Your task to perform on an android device: Search for sony triple a on bestbuy.com, select the first entry, add it to the cart, then select checkout. Image 0: 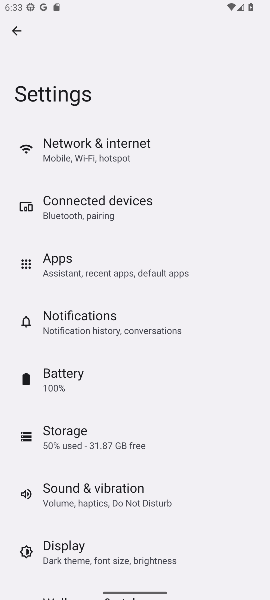
Step 0: press home button
Your task to perform on an android device: Search for sony triple a on bestbuy.com, select the first entry, add it to the cart, then select checkout. Image 1: 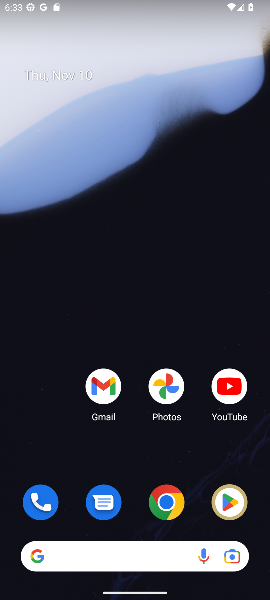
Step 1: drag from (135, 463) to (111, 134)
Your task to perform on an android device: Search for sony triple a on bestbuy.com, select the first entry, add it to the cart, then select checkout. Image 2: 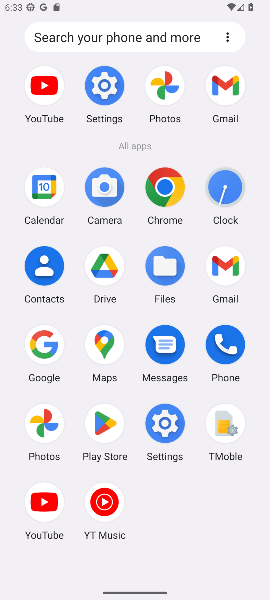
Step 2: click (40, 347)
Your task to perform on an android device: Search for sony triple a on bestbuy.com, select the first entry, add it to the cart, then select checkout. Image 3: 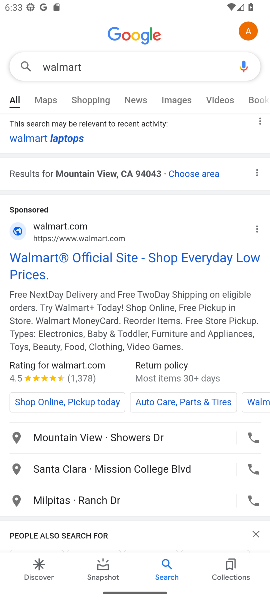
Step 3: click (143, 61)
Your task to perform on an android device: Search for sony triple a on bestbuy.com, select the first entry, add it to the cart, then select checkout. Image 4: 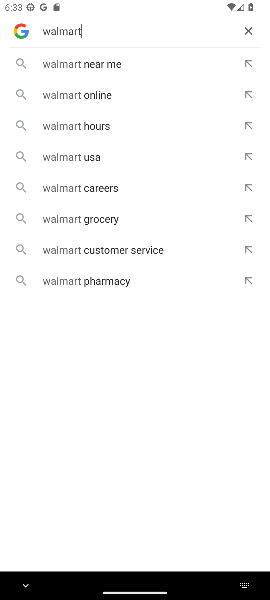
Step 4: click (245, 30)
Your task to perform on an android device: Search for sony triple a on bestbuy.com, select the first entry, add it to the cart, then select checkout. Image 5: 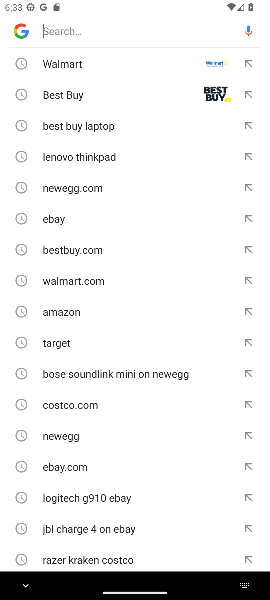
Step 5: click (106, 96)
Your task to perform on an android device: Search for sony triple a on bestbuy.com, select the first entry, add it to the cart, then select checkout. Image 6: 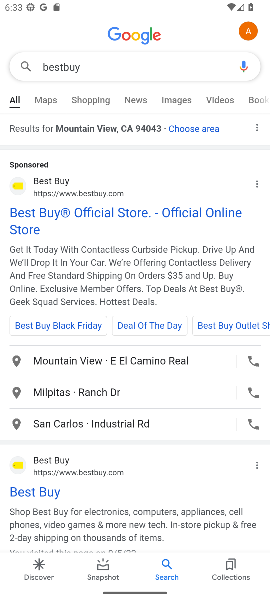
Step 6: click (39, 211)
Your task to perform on an android device: Search for sony triple a on bestbuy.com, select the first entry, add it to the cart, then select checkout. Image 7: 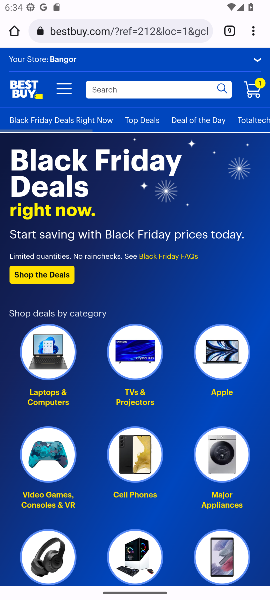
Step 7: click (153, 87)
Your task to perform on an android device: Search for sony triple a on bestbuy.com, select the first entry, add it to the cart, then select checkout. Image 8: 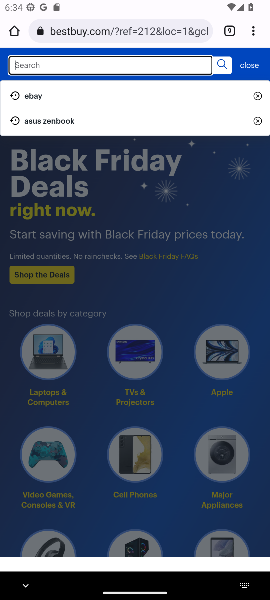
Step 8: type "sony triple a "
Your task to perform on an android device: Search for sony triple a on bestbuy.com, select the first entry, add it to the cart, then select checkout. Image 9: 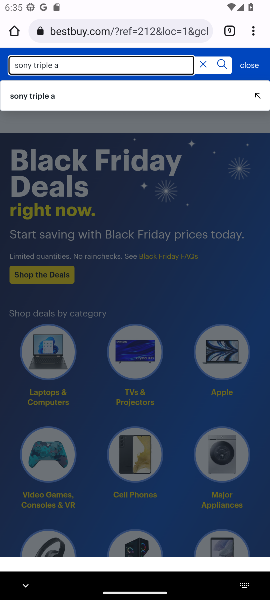
Step 9: click (48, 99)
Your task to perform on an android device: Search for sony triple a on bestbuy.com, select the first entry, add it to the cart, then select checkout. Image 10: 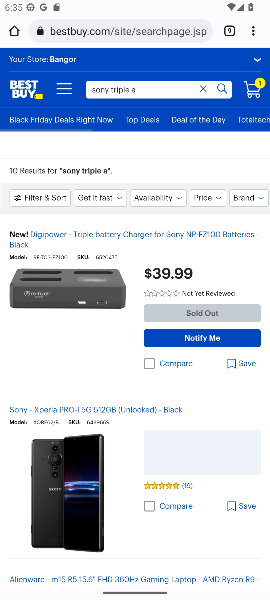
Step 10: click (221, 88)
Your task to perform on an android device: Search for sony triple a on bestbuy.com, select the first entry, add it to the cart, then select checkout. Image 11: 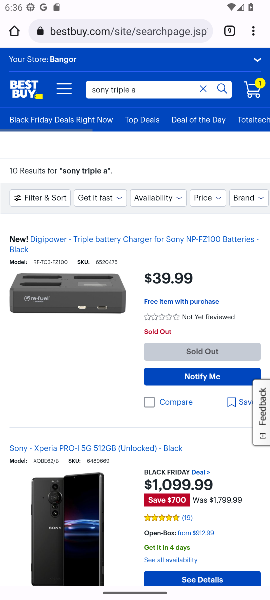
Step 11: click (222, 90)
Your task to perform on an android device: Search for sony triple a on bestbuy.com, select the first entry, add it to the cart, then select checkout. Image 12: 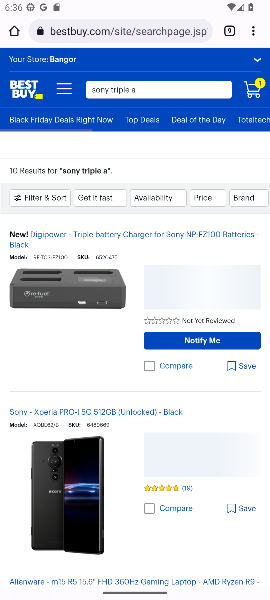
Step 12: task complete